Your task to perform on an android device: Go to battery settings Image 0: 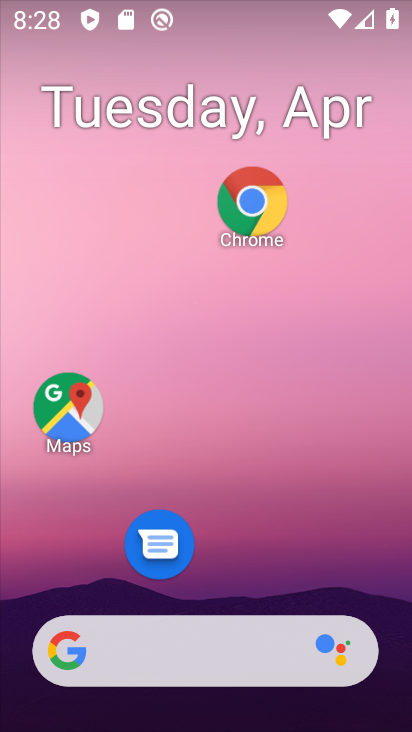
Step 0: drag from (239, 488) to (316, 60)
Your task to perform on an android device: Go to battery settings Image 1: 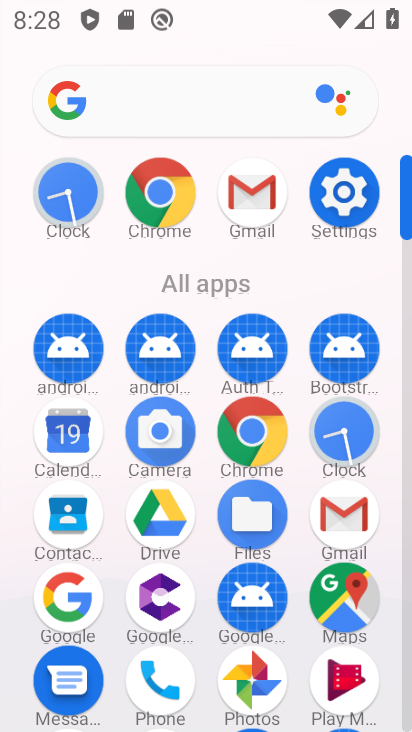
Step 1: click (357, 177)
Your task to perform on an android device: Go to battery settings Image 2: 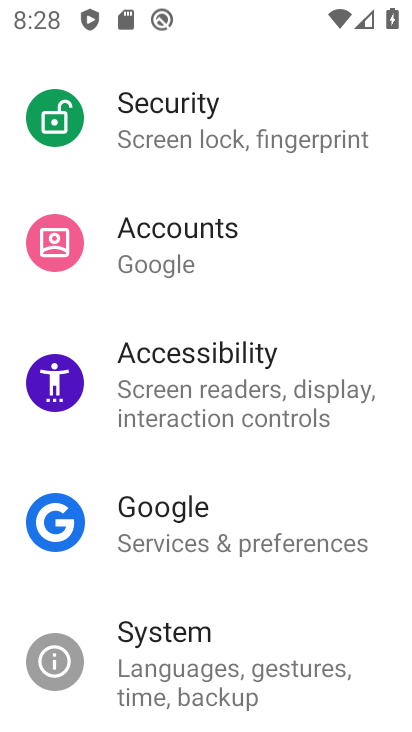
Step 2: drag from (239, 346) to (309, 32)
Your task to perform on an android device: Go to battery settings Image 3: 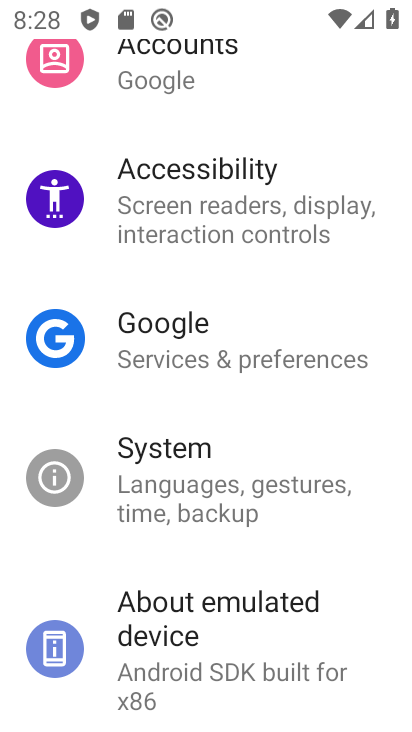
Step 3: drag from (254, 398) to (196, 726)
Your task to perform on an android device: Go to battery settings Image 4: 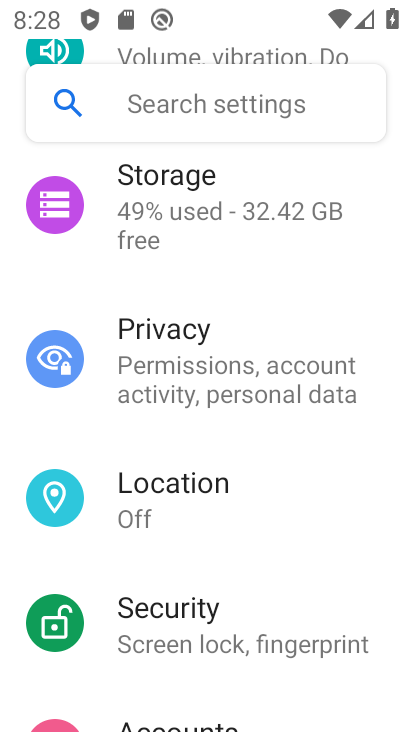
Step 4: drag from (206, 520) to (186, 709)
Your task to perform on an android device: Go to battery settings Image 5: 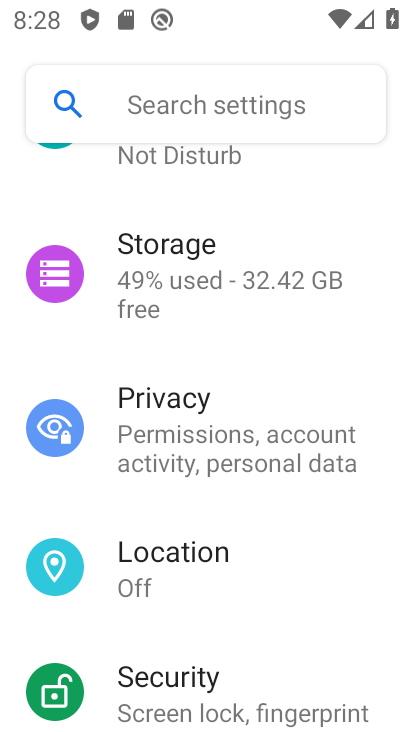
Step 5: drag from (244, 208) to (244, 678)
Your task to perform on an android device: Go to battery settings Image 6: 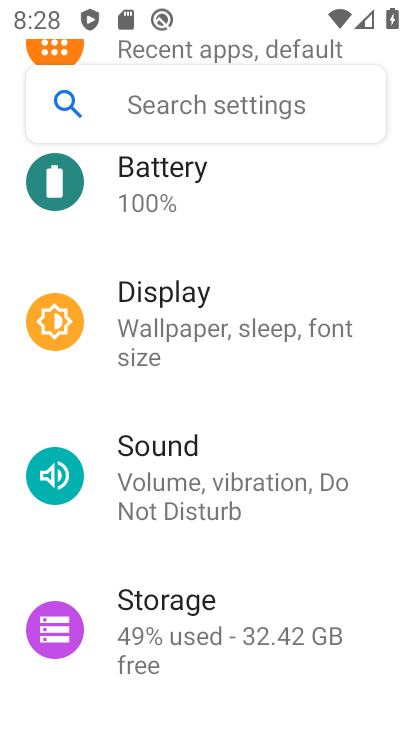
Step 6: click (182, 178)
Your task to perform on an android device: Go to battery settings Image 7: 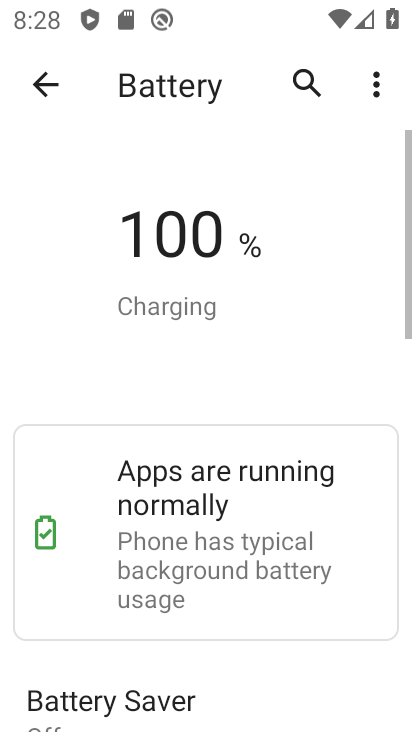
Step 7: task complete